Your task to perform on an android device: toggle notification dots Image 0: 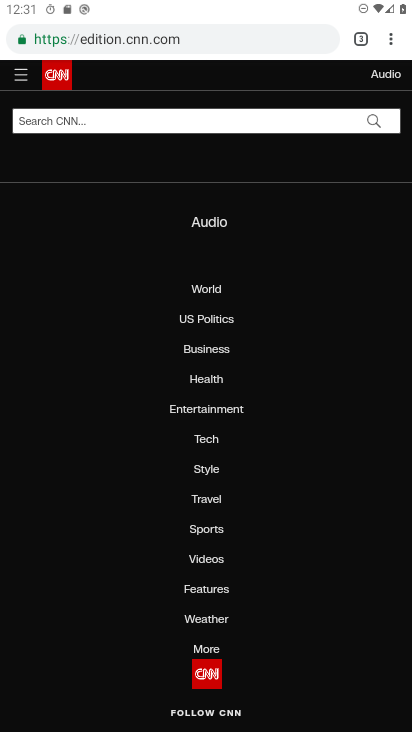
Step 0: press home button
Your task to perform on an android device: toggle notification dots Image 1: 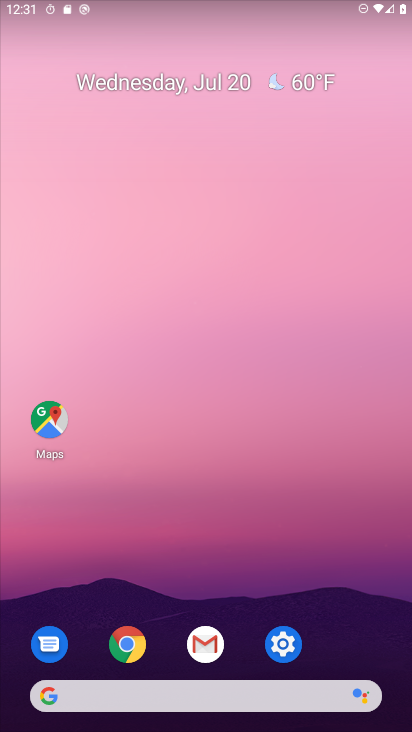
Step 1: click (283, 636)
Your task to perform on an android device: toggle notification dots Image 2: 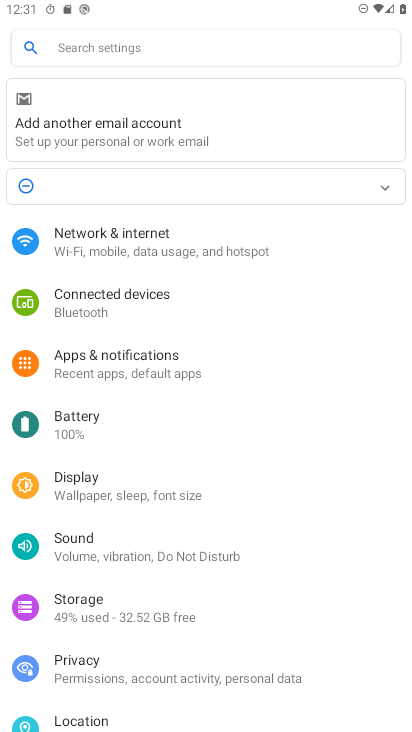
Step 2: click (94, 56)
Your task to perform on an android device: toggle notification dots Image 3: 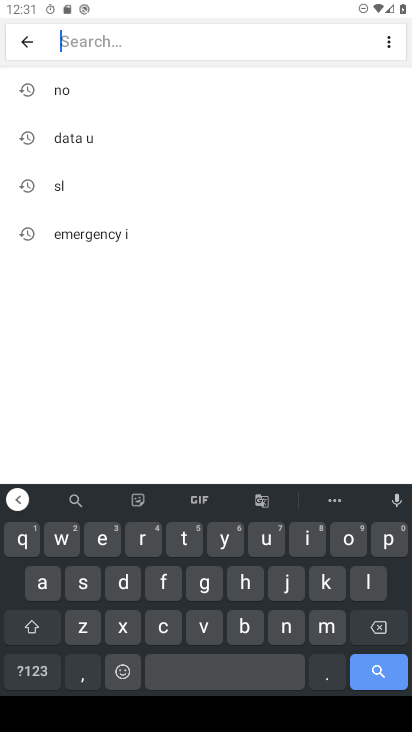
Step 3: click (283, 634)
Your task to perform on an android device: toggle notification dots Image 4: 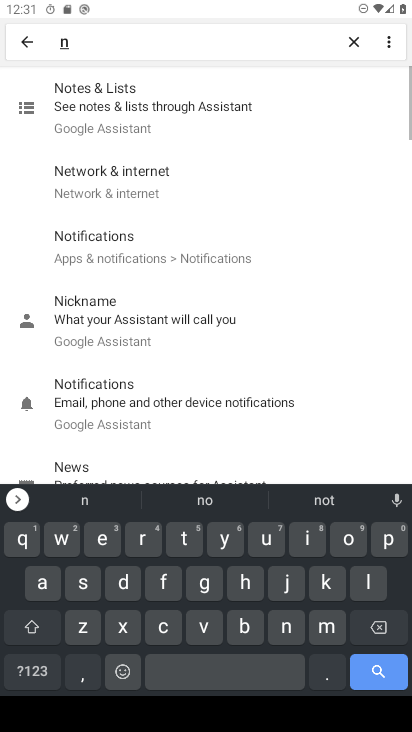
Step 4: click (339, 545)
Your task to perform on an android device: toggle notification dots Image 5: 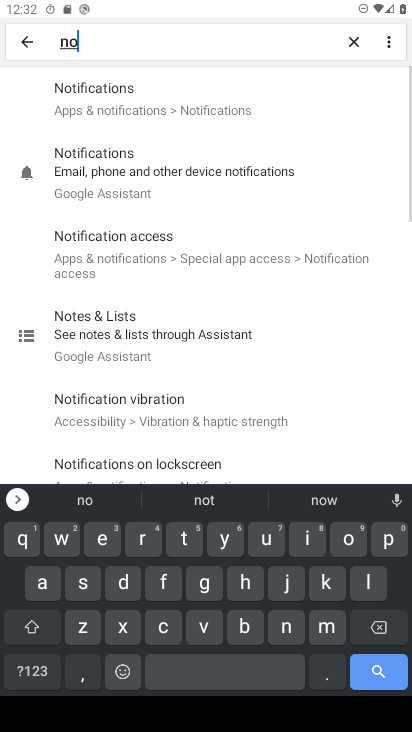
Step 5: click (144, 91)
Your task to perform on an android device: toggle notification dots Image 6: 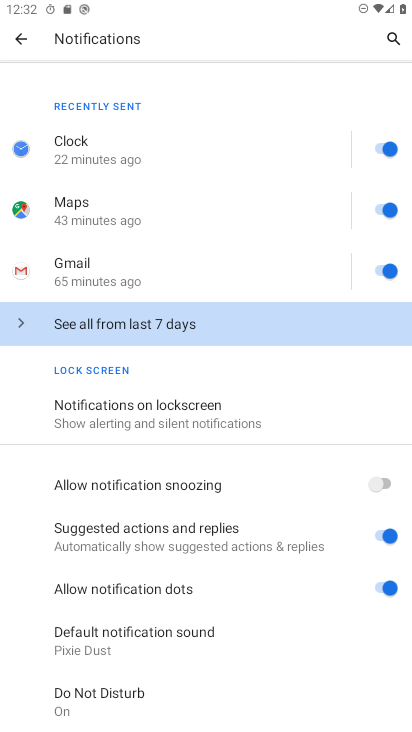
Step 6: click (289, 594)
Your task to perform on an android device: toggle notification dots Image 7: 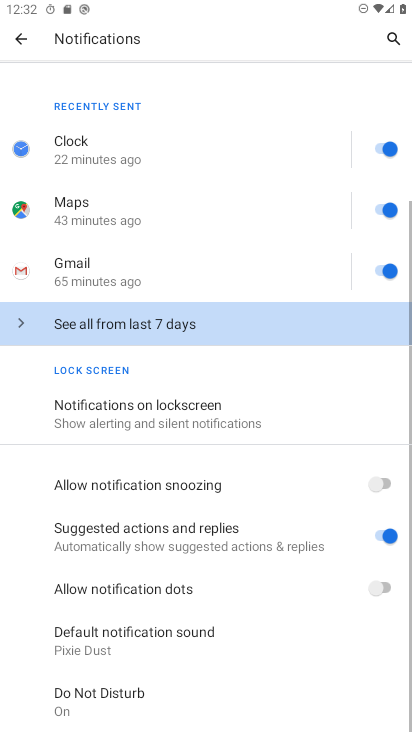
Step 7: click (289, 592)
Your task to perform on an android device: toggle notification dots Image 8: 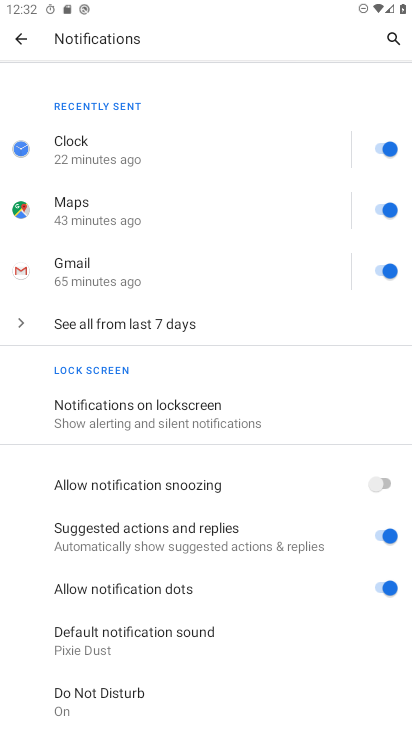
Step 8: task complete